Your task to perform on an android device: turn on wifi Image 0: 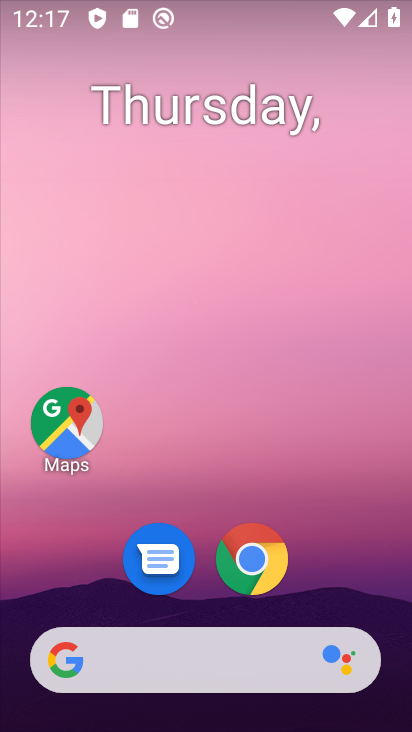
Step 0: click (361, 3)
Your task to perform on an android device: turn on wifi Image 1: 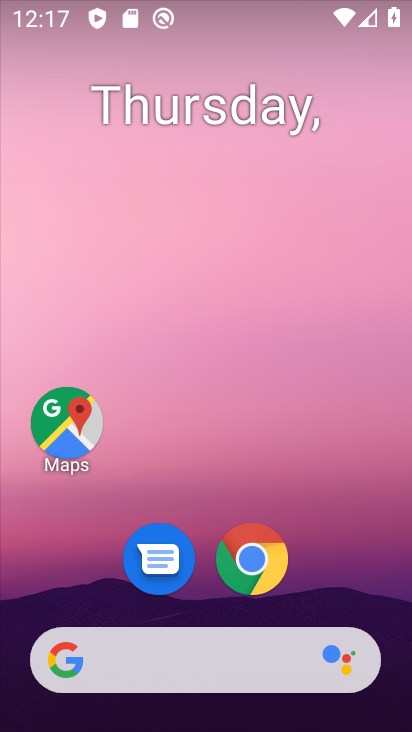
Step 1: task complete